Your task to perform on an android device: Show me recent news Image 0: 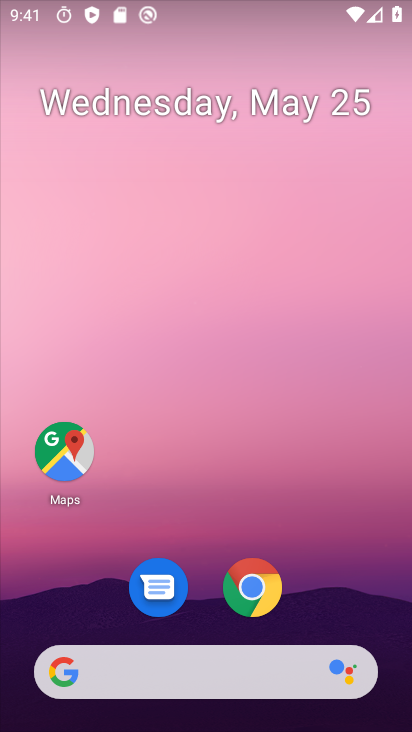
Step 0: click (186, 663)
Your task to perform on an android device: Show me recent news Image 1: 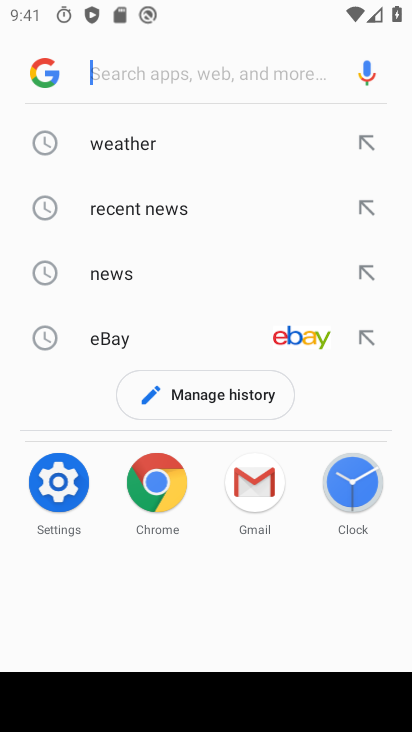
Step 1: click (165, 203)
Your task to perform on an android device: Show me recent news Image 2: 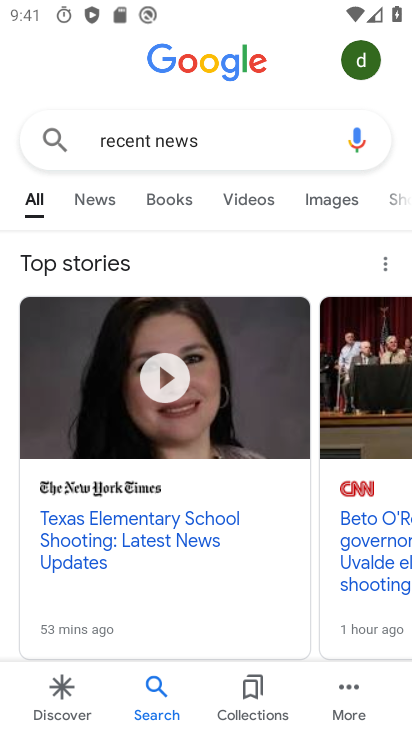
Step 2: task complete